Your task to perform on an android device: turn on bluetooth scan Image 0: 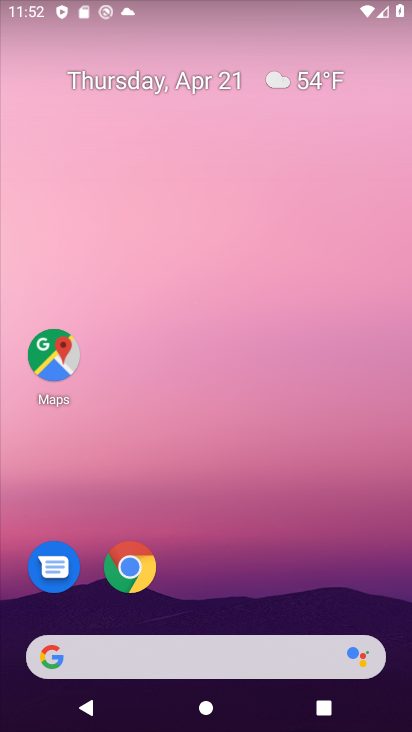
Step 0: drag from (252, 493) to (343, 37)
Your task to perform on an android device: turn on bluetooth scan Image 1: 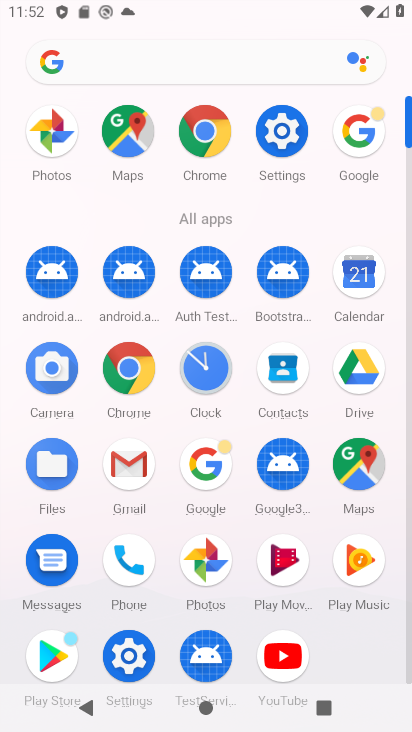
Step 1: click (290, 142)
Your task to perform on an android device: turn on bluetooth scan Image 2: 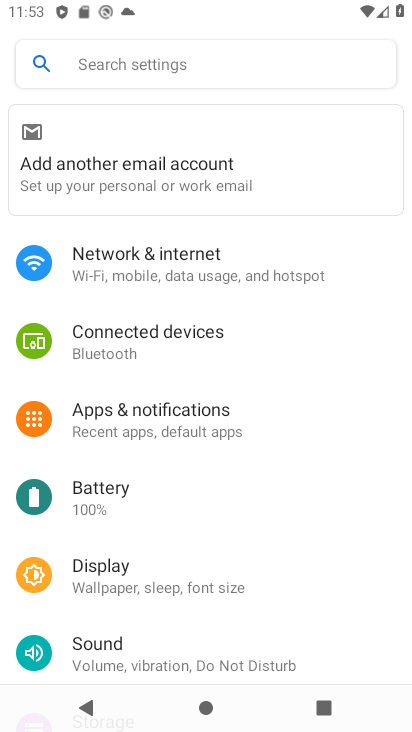
Step 2: click (208, 358)
Your task to perform on an android device: turn on bluetooth scan Image 3: 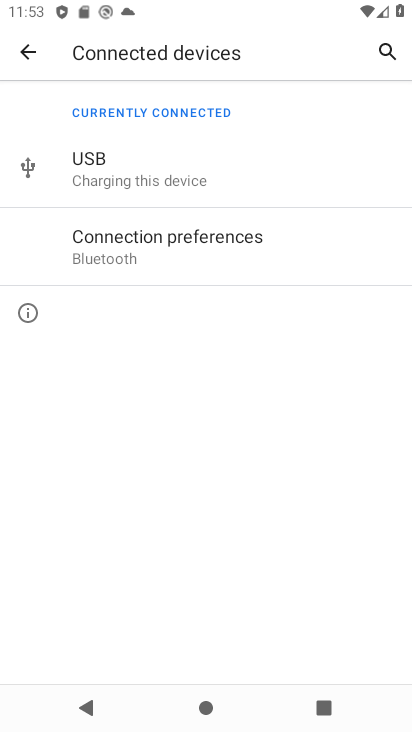
Step 3: click (229, 243)
Your task to perform on an android device: turn on bluetooth scan Image 4: 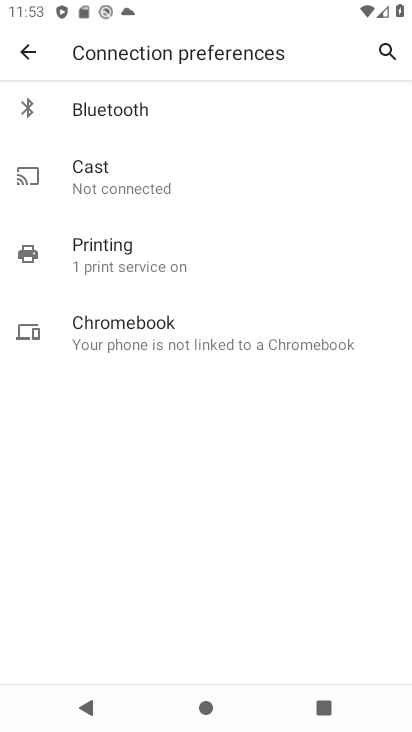
Step 4: click (179, 108)
Your task to perform on an android device: turn on bluetooth scan Image 5: 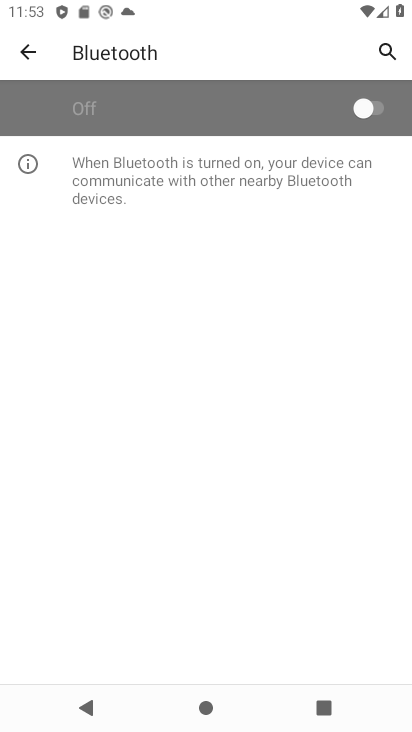
Step 5: click (324, 113)
Your task to perform on an android device: turn on bluetooth scan Image 6: 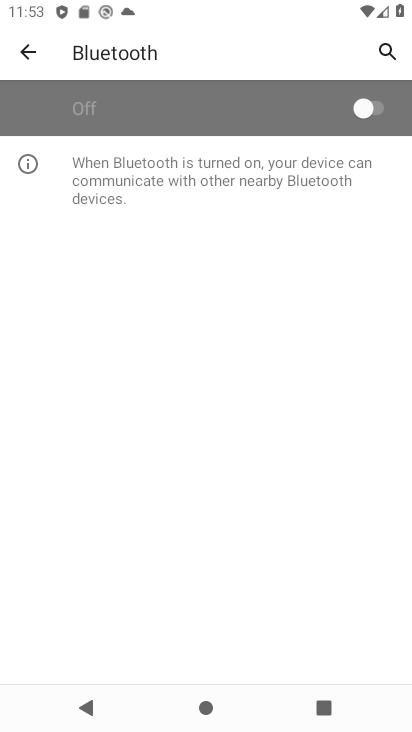
Step 6: task complete